Your task to perform on an android device: show emergency info Image 0: 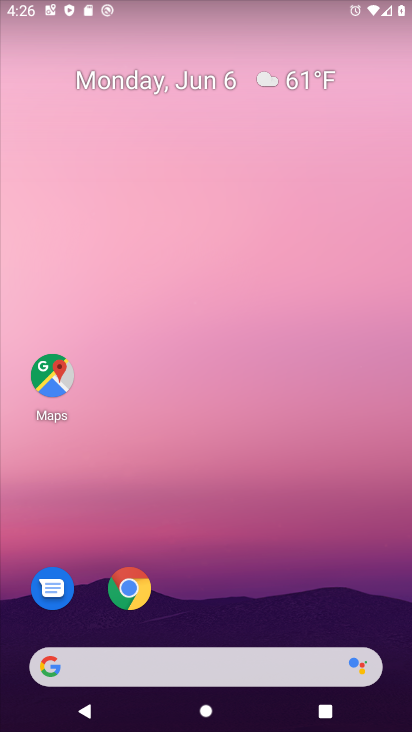
Step 0: drag from (291, 622) to (231, 179)
Your task to perform on an android device: show emergency info Image 1: 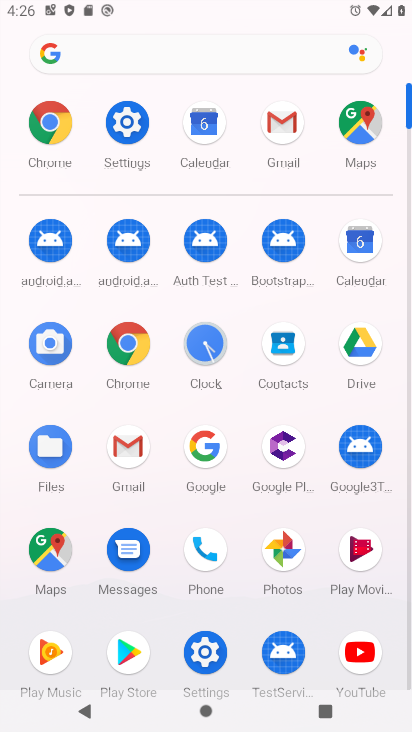
Step 1: click (127, 127)
Your task to perform on an android device: show emergency info Image 2: 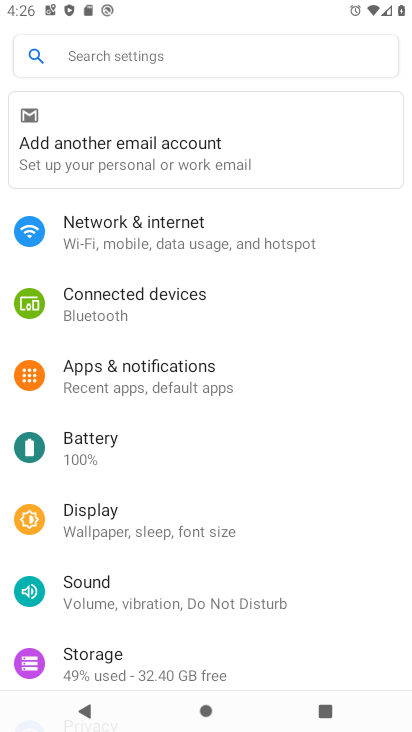
Step 2: drag from (184, 632) to (169, 52)
Your task to perform on an android device: show emergency info Image 3: 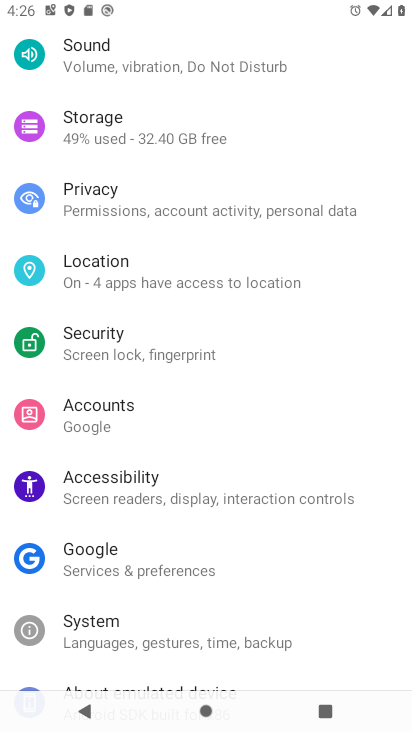
Step 3: drag from (212, 607) to (242, 114)
Your task to perform on an android device: show emergency info Image 4: 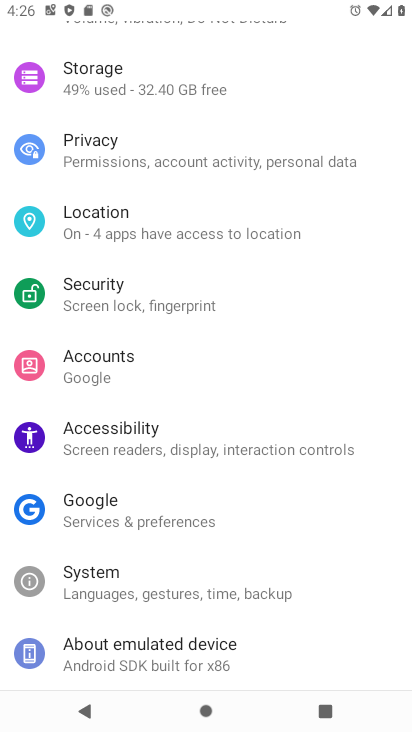
Step 4: click (178, 645)
Your task to perform on an android device: show emergency info Image 5: 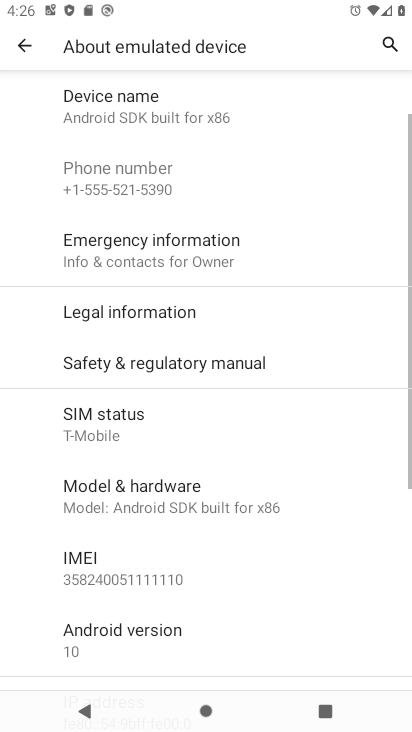
Step 5: click (253, 278)
Your task to perform on an android device: show emergency info Image 6: 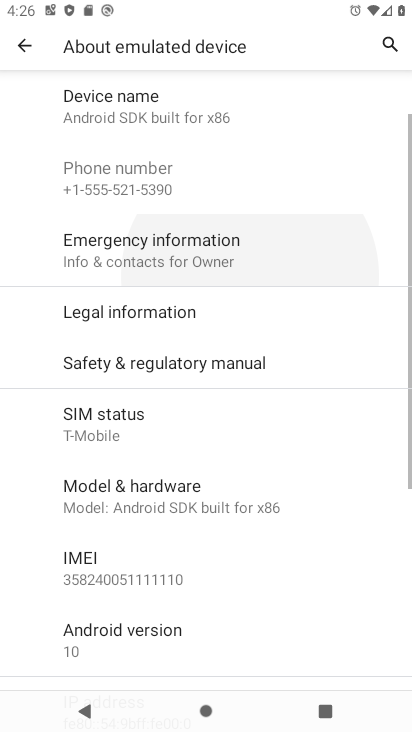
Step 6: click (253, 268)
Your task to perform on an android device: show emergency info Image 7: 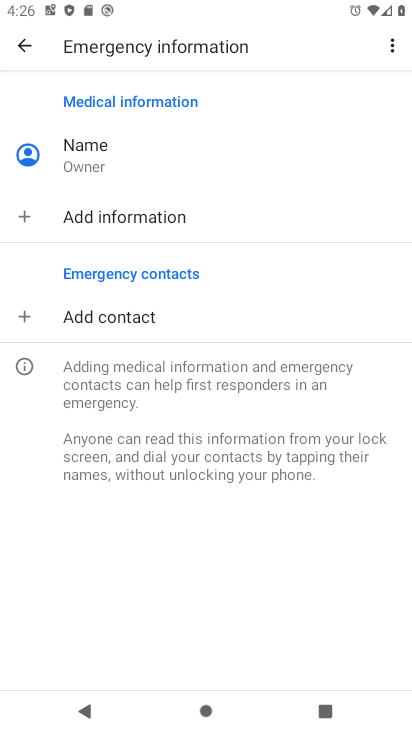
Step 7: task complete